Your task to perform on an android device: stop showing notifications on the lock screen Image 0: 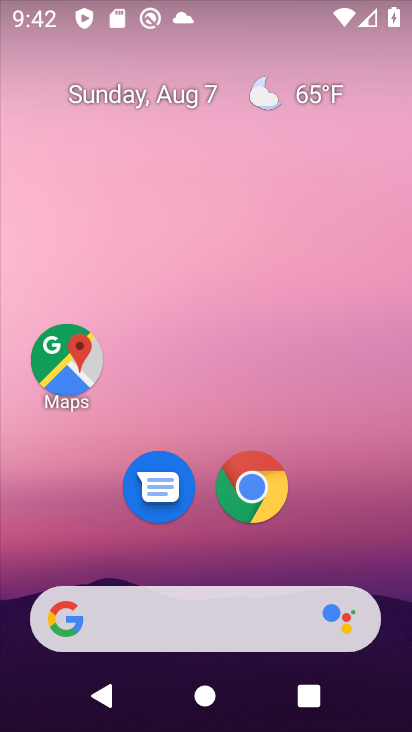
Step 0: drag from (398, 685) to (357, 187)
Your task to perform on an android device: stop showing notifications on the lock screen Image 1: 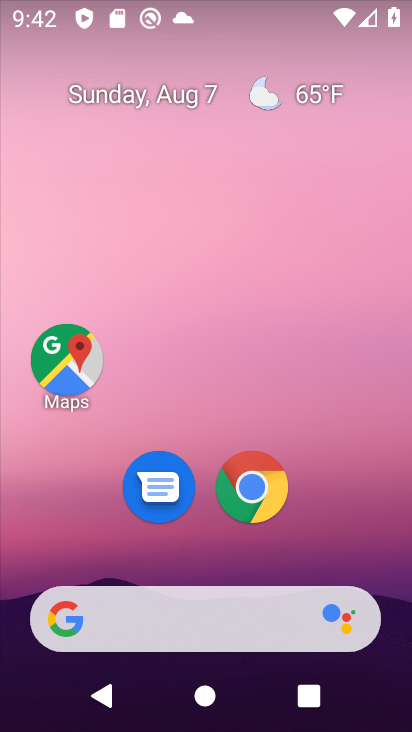
Step 1: drag from (387, 706) to (325, 55)
Your task to perform on an android device: stop showing notifications on the lock screen Image 2: 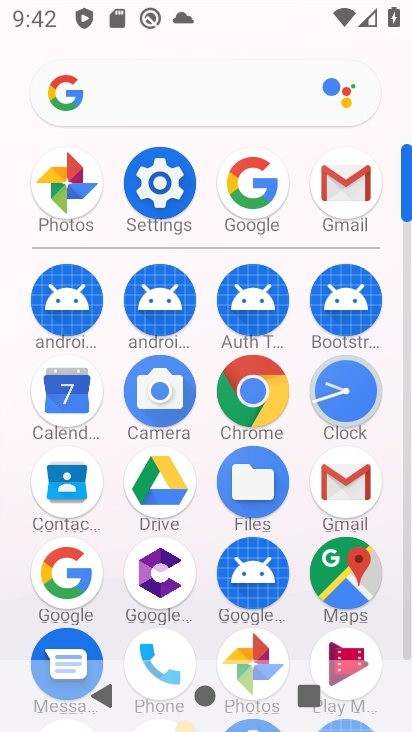
Step 2: click (163, 200)
Your task to perform on an android device: stop showing notifications on the lock screen Image 3: 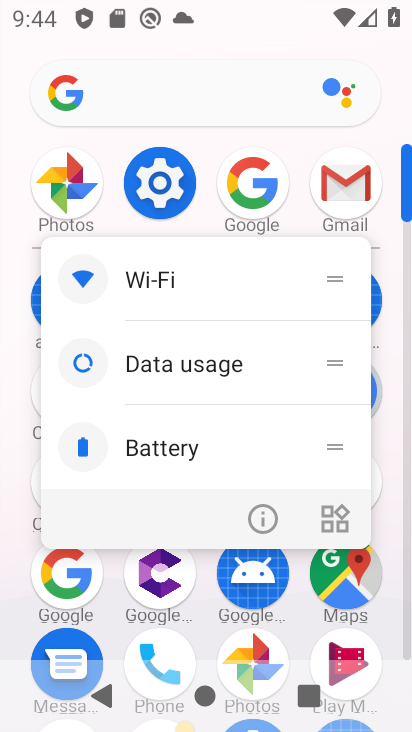
Step 3: click (161, 188)
Your task to perform on an android device: stop showing notifications on the lock screen Image 4: 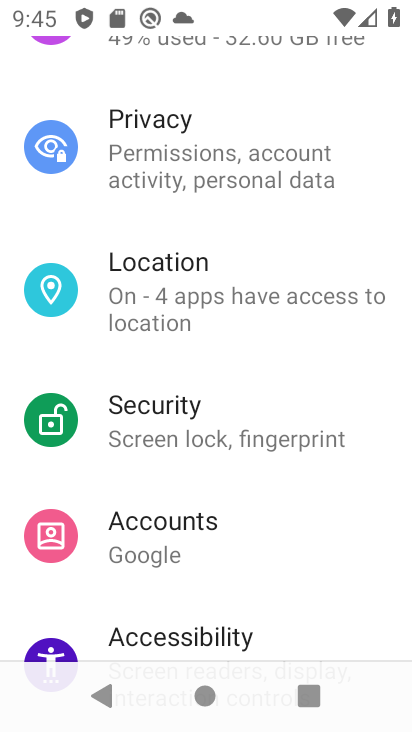
Step 4: drag from (272, 125) to (271, 585)
Your task to perform on an android device: stop showing notifications on the lock screen Image 5: 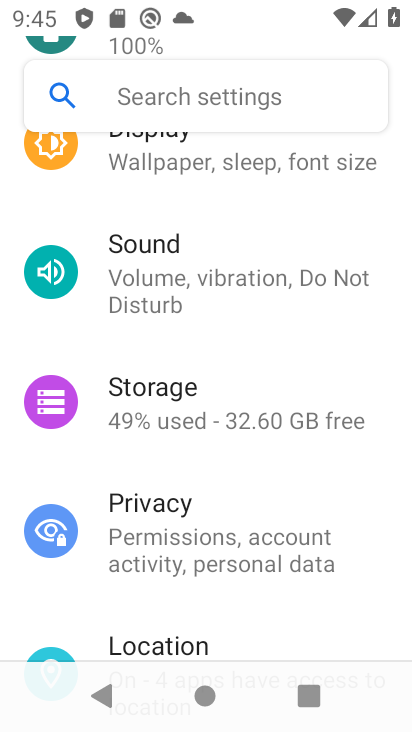
Step 5: drag from (239, 180) to (261, 649)
Your task to perform on an android device: stop showing notifications on the lock screen Image 6: 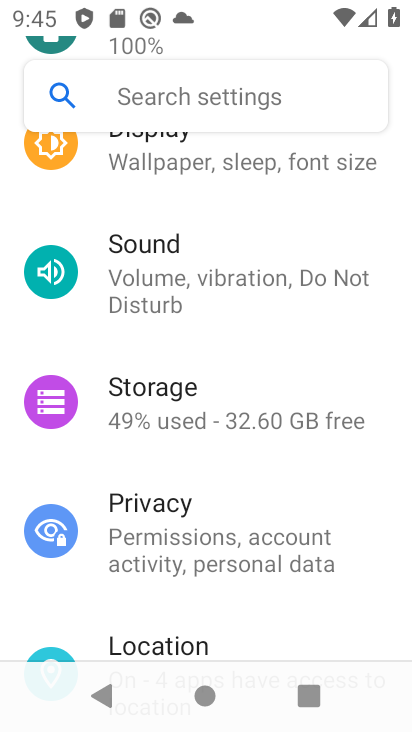
Step 6: drag from (249, 199) to (275, 639)
Your task to perform on an android device: stop showing notifications on the lock screen Image 7: 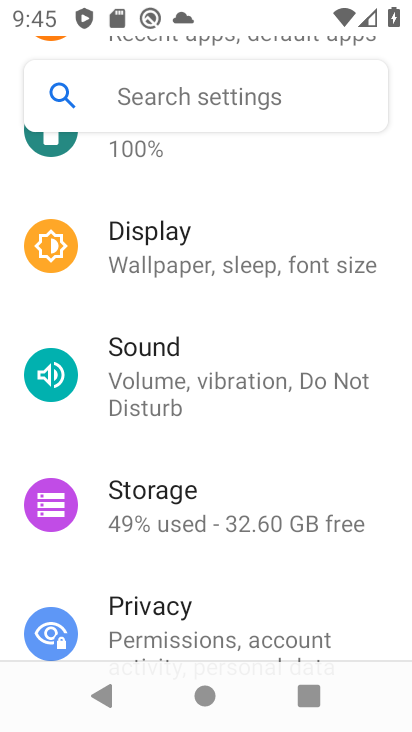
Step 7: drag from (251, 183) to (264, 583)
Your task to perform on an android device: stop showing notifications on the lock screen Image 8: 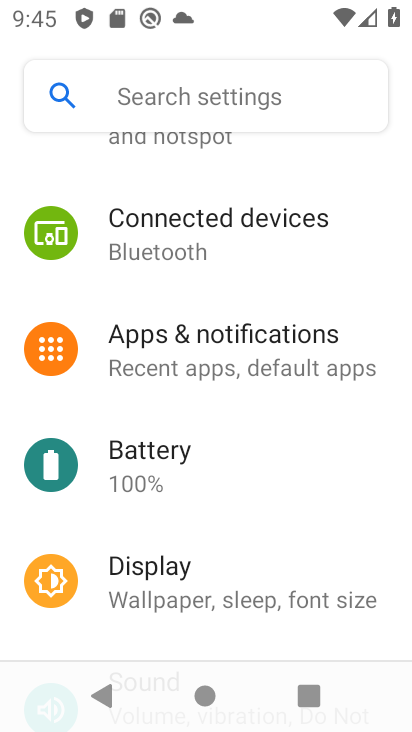
Step 8: drag from (266, 176) to (267, 591)
Your task to perform on an android device: stop showing notifications on the lock screen Image 9: 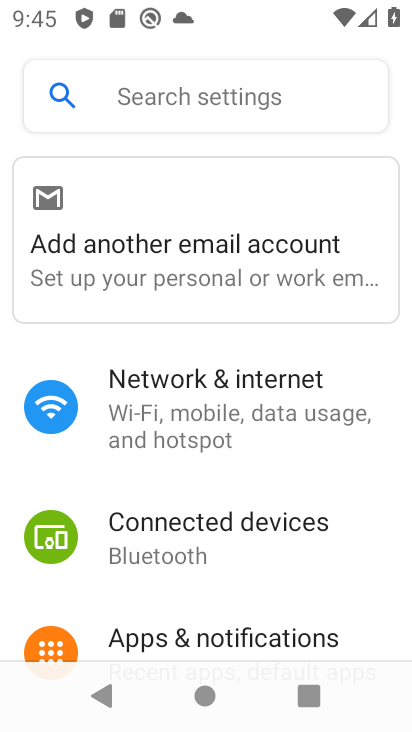
Step 9: drag from (296, 198) to (293, 488)
Your task to perform on an android device: stop showing notifications on the lock screen Image 10: 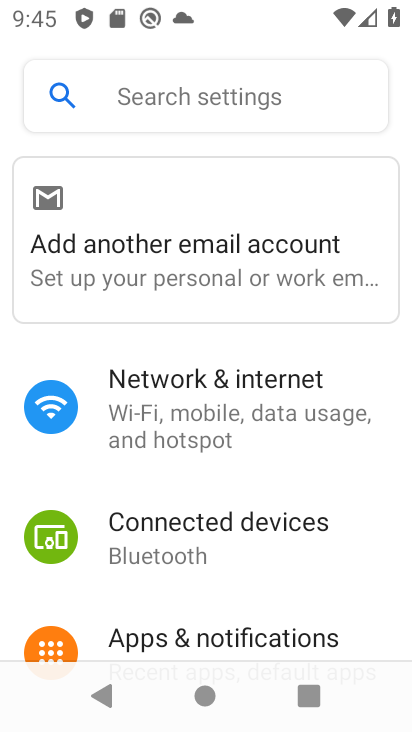
Step 10: click (231, 626)
Your task to perform on an android device: stop showing notifications on the lock screen Image 11: 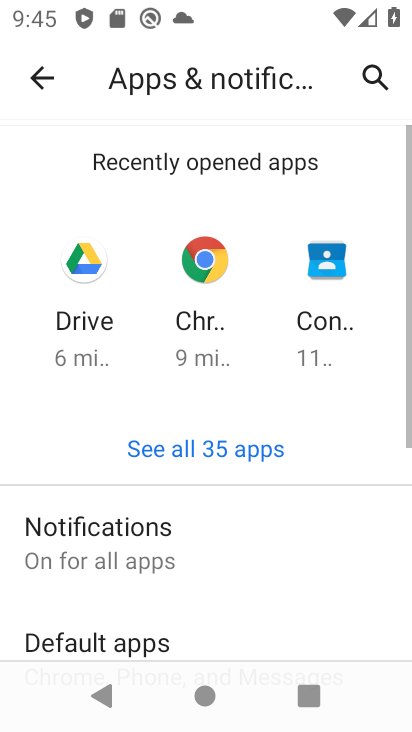
Step 11: click (113, 566)
Your task to perform on an android device: stop showing notifications on the lock screen Image 12: 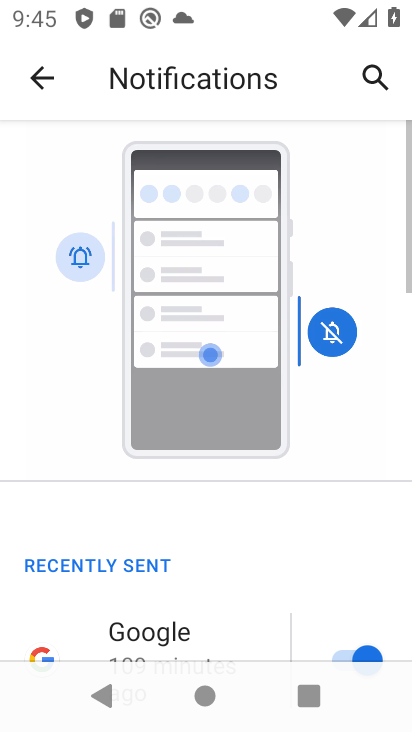
Step 12: drag from (234, 613) to (242, 203)
Your task to perform on an android device: stop showing notifications on the lock screen Image 13: 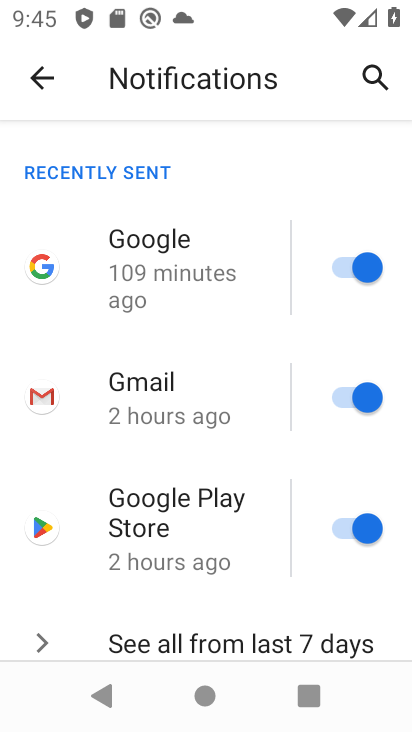
Step 13: drag from (259, 601) to (259, 291)
Your task to perform on an android device: stop showing notifications on the lock screen Image 14: 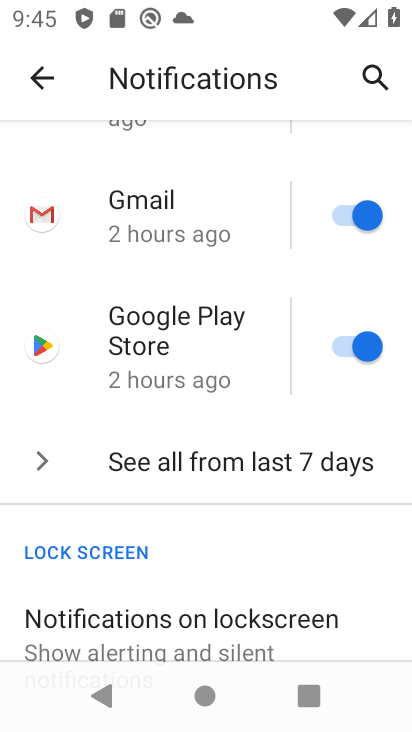
Step 14: click (55, 619)
Your task to perform on an android device: stop showing notifications on the lock screen Image 15: 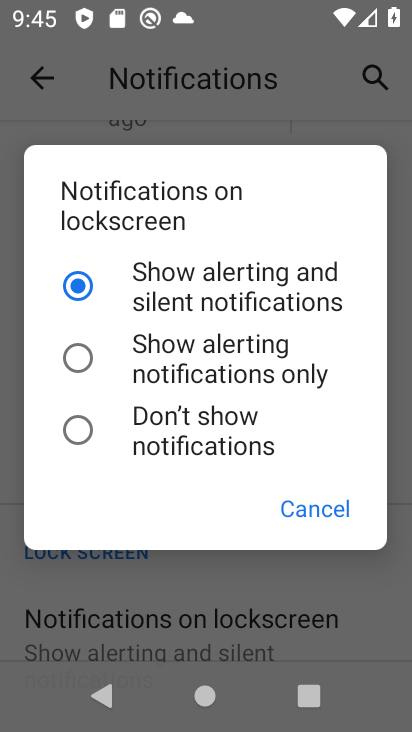
Step 15: click (78, 431)
Your task to perform on an android device: stop showing notifications on the lock screen Image 16: 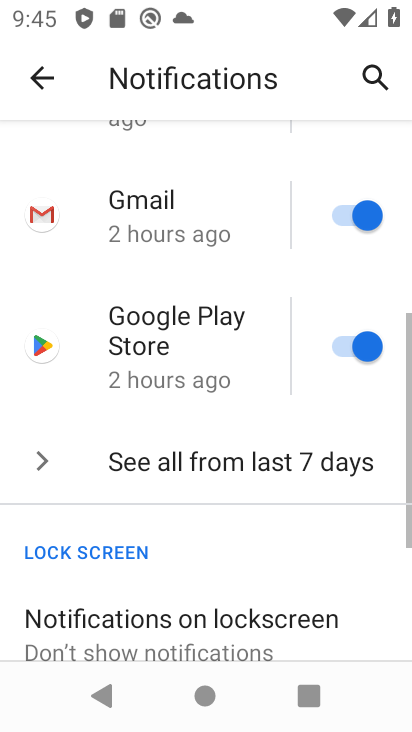
Step 16: task complete